Your task to perform on an android device: change the clock style Image 0: 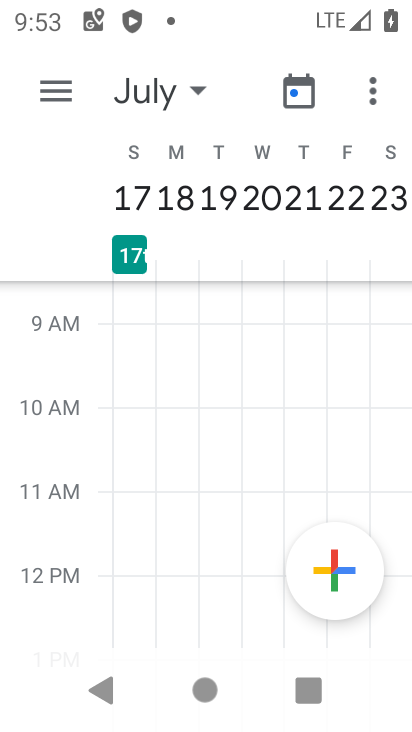
Step 0: press back button
Your task to perform on an android device: change the clock style Image 1: 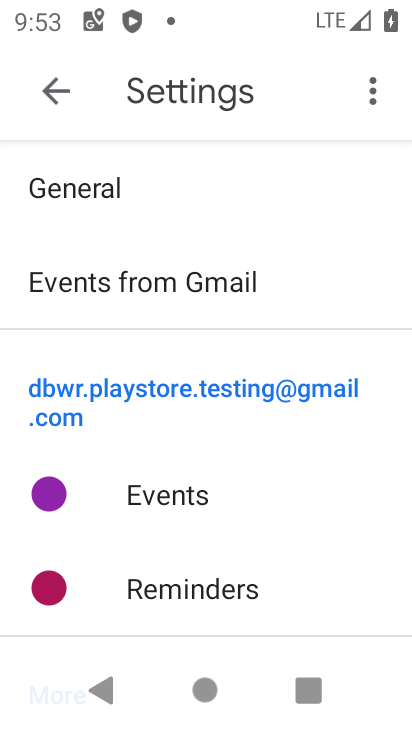
Step 1: press home button
Your task to perform on an android device: change the clock style Image 2: 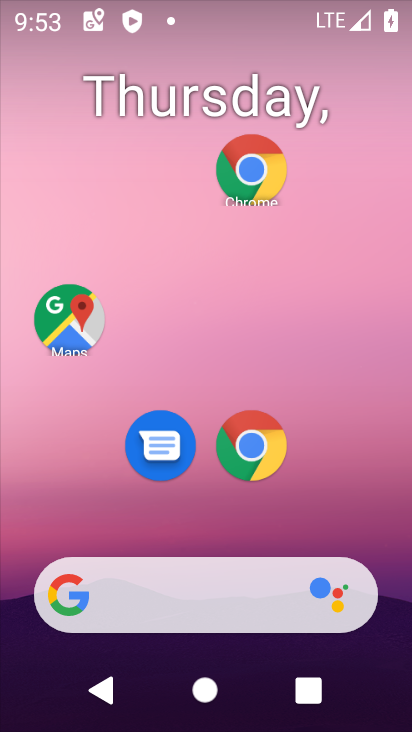
Step 2: drag from (172, 534) to (185, 129)
Your task to perform on an android device: change the clock style Image 3: 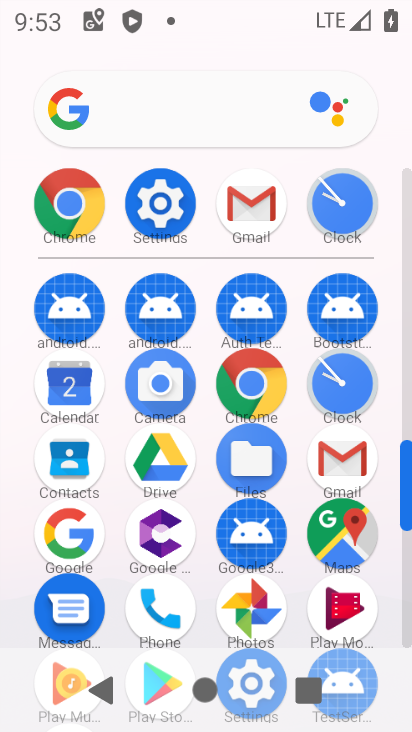
Step 3: click (347, 377)
Your task to perform on an android device: change the clock style Image 4: 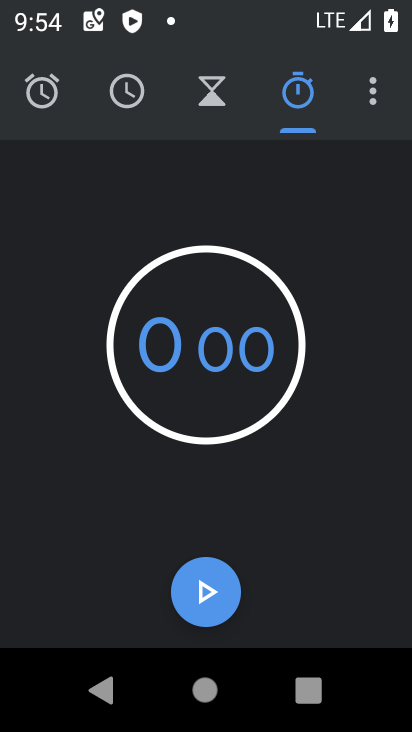
Step 4: click (373, 97)
Your task to perform on an android device: change the clock style Image 5: 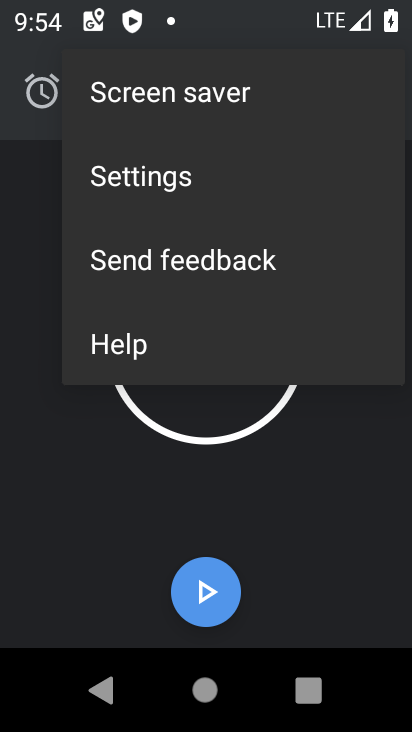
Step 5: click (143, 173)
Your task to perform on an android device: change the clock style Image 6: 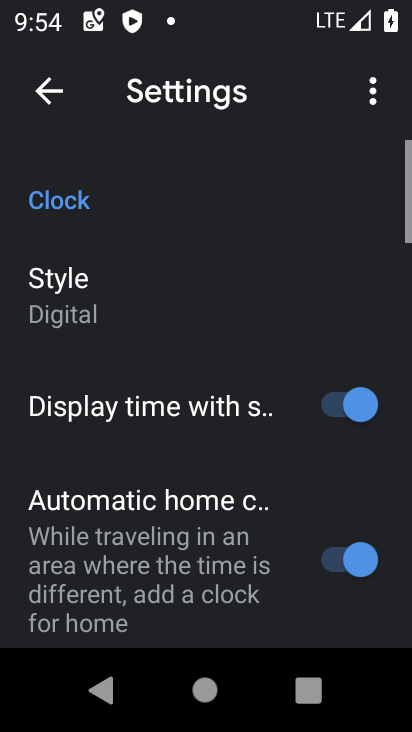
Step 6: click (106, 302)
Your task to perform on an android device: change the clock style Image 7: 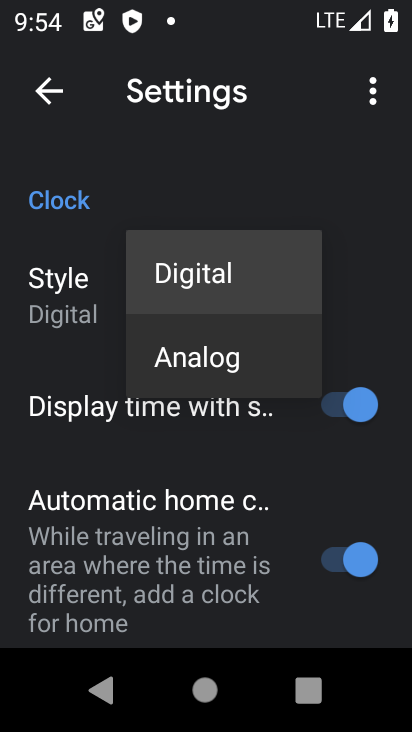
Step 7: click (159, 351)
Your task to perform on an android device: change the clock style Image 8: 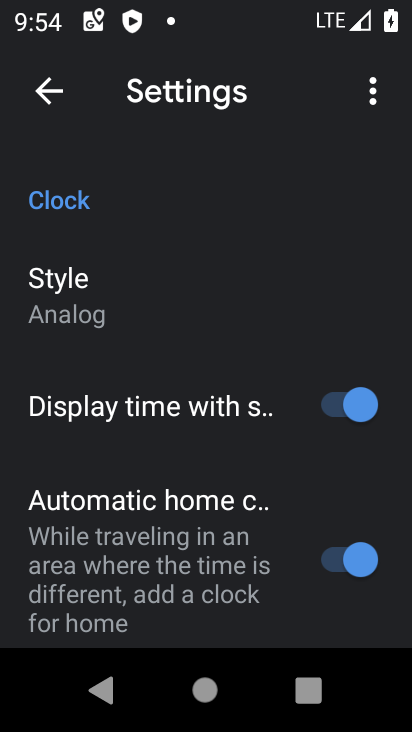
Step 8: task complete